Your task to perform on an android device: Open the web browser Image 0: 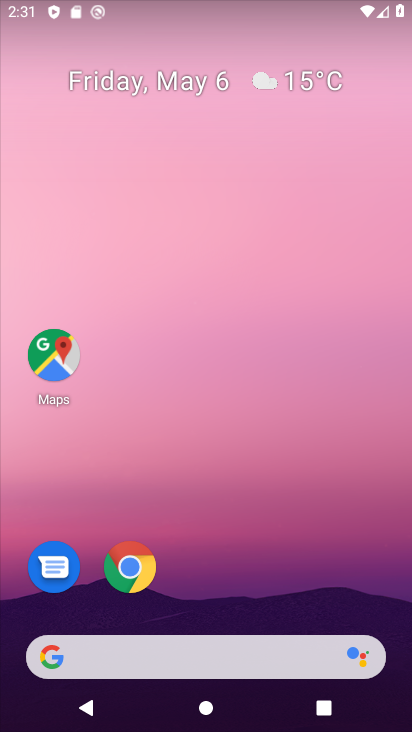
Step 0: click (123, 587)
Your task to perform on an android device: Open the web browser Image 1: 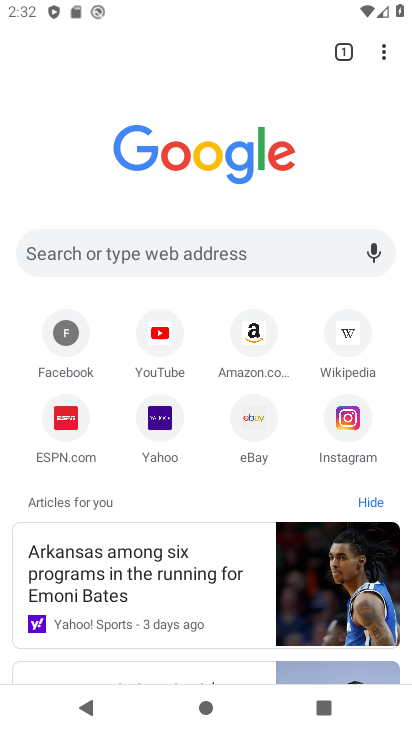
Step 1: task complete